Your task to perform on an android device: Go to eBay Image 0: 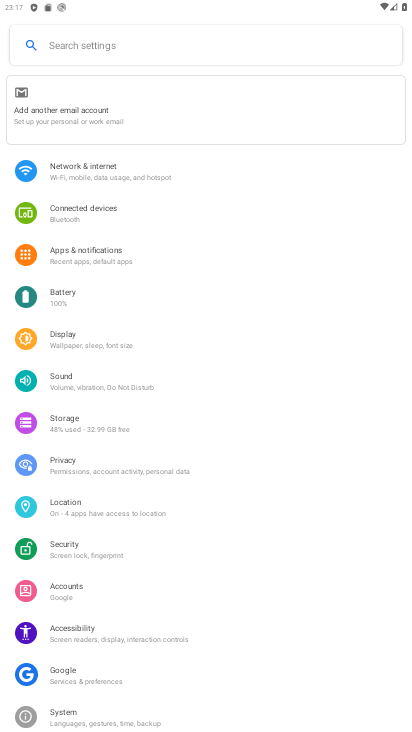
Step 0: press home button
Your task to perform on an android device: Go to eBay Image 1: 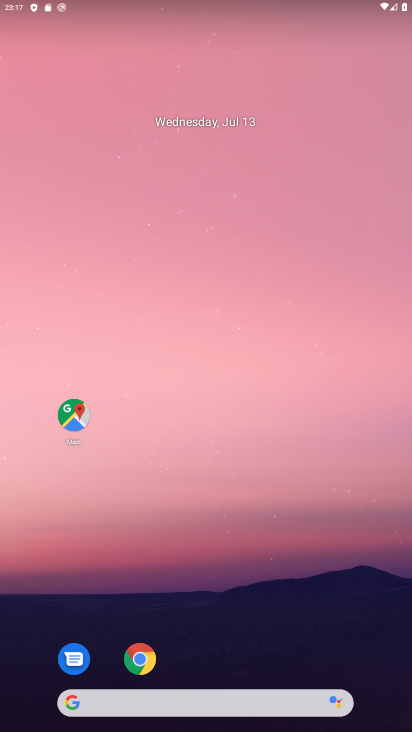
Step 1: click (141, 659)
Your task to perform on an android device: Go to eBay Image 2: 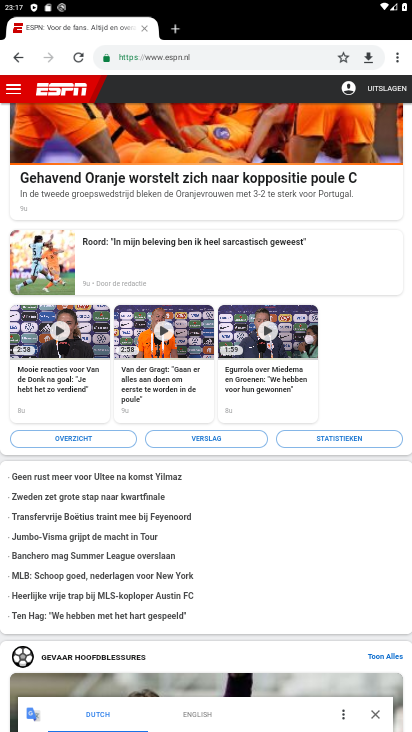
Step 2: click (199, 51)
Your task to perform on an android device: Go to eBay Image 3: 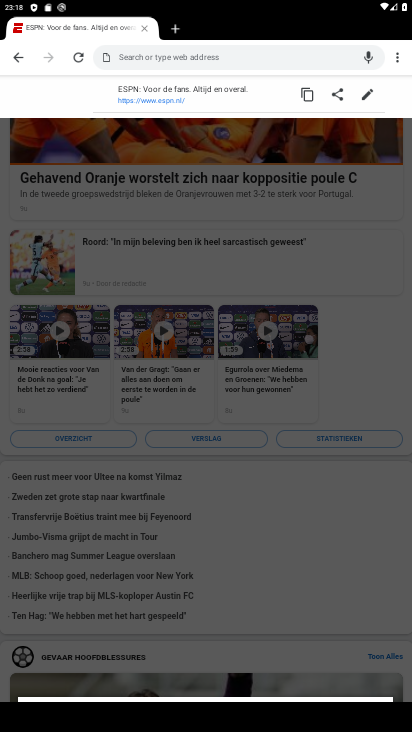
Step 3: type "eBay"
Your task to perform on an android device: Go to eBay Image 4: 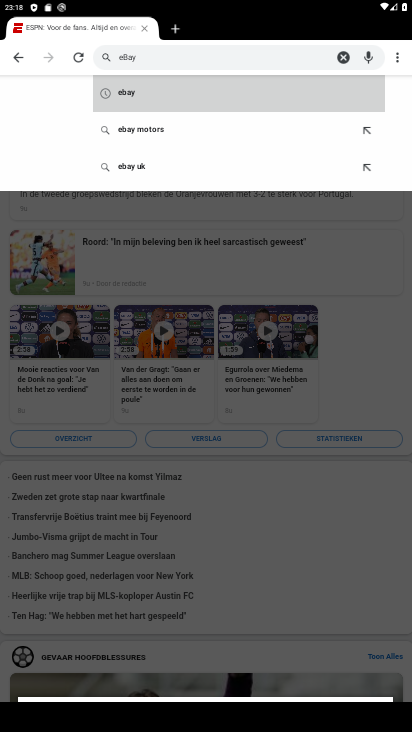
Step 4: click (116, 90)
Your task to perform on an android device: Go to eBay Image 5: 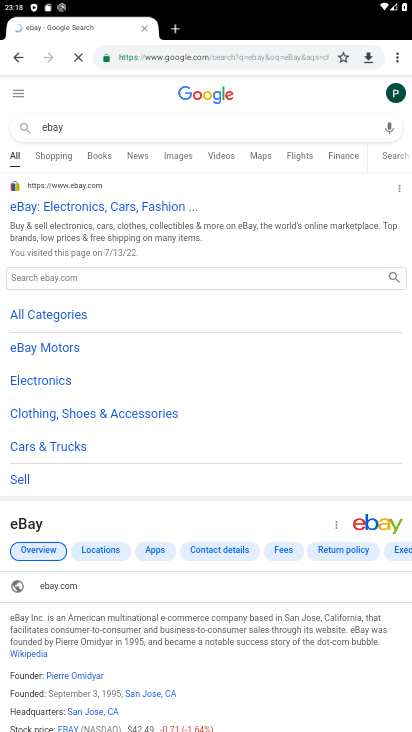
Step 5: click (61, 208)
Your task to perform on an android device: Go to eBay Image 6: 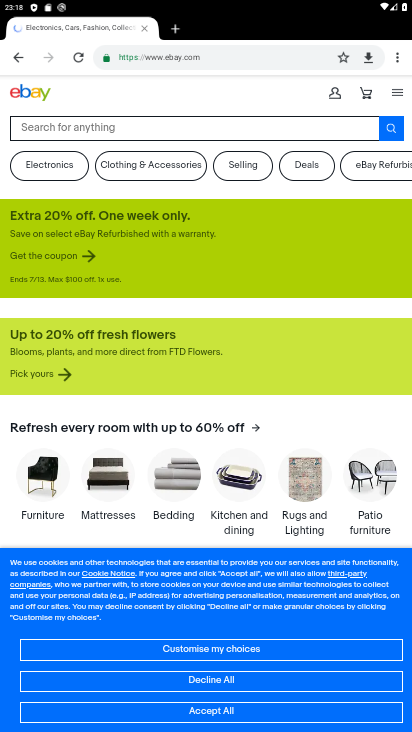
Step 6: task complete